Your task to perform on an android device: turn off location history Image 0: 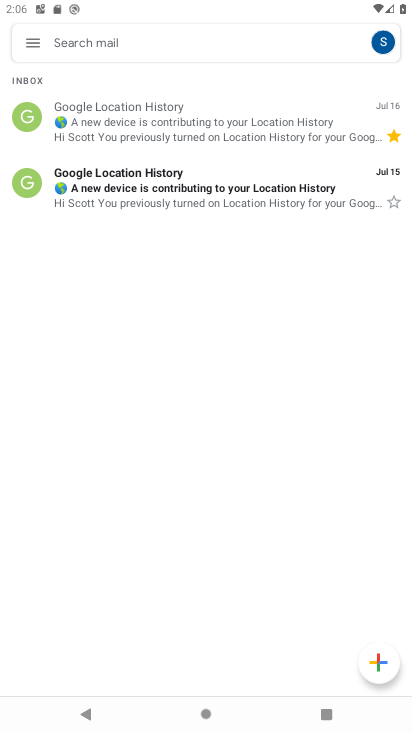
Step 0: press home button
Your task to perform on an android device: turn off location history Image 1: 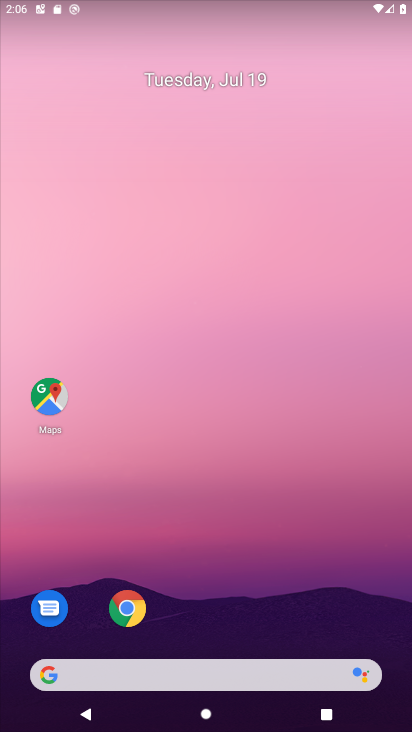
Step 1: drag from (246, 335) to (254, 198)
Your task to perform on an android device: turn off location history Image 2: 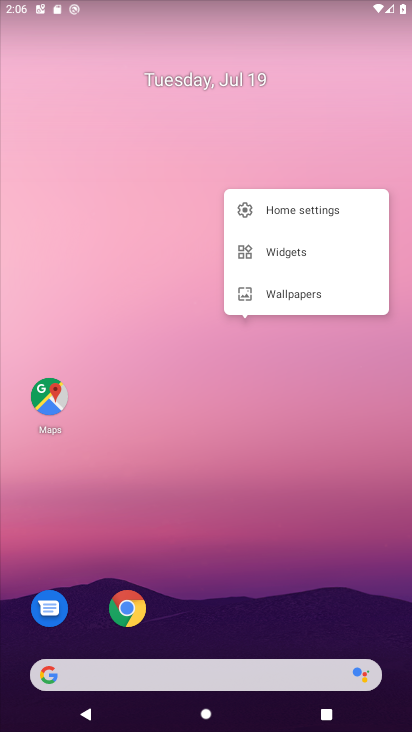
Step 2: click (266, 560)
Your task to perform on an android device: turn off location history Image 3: 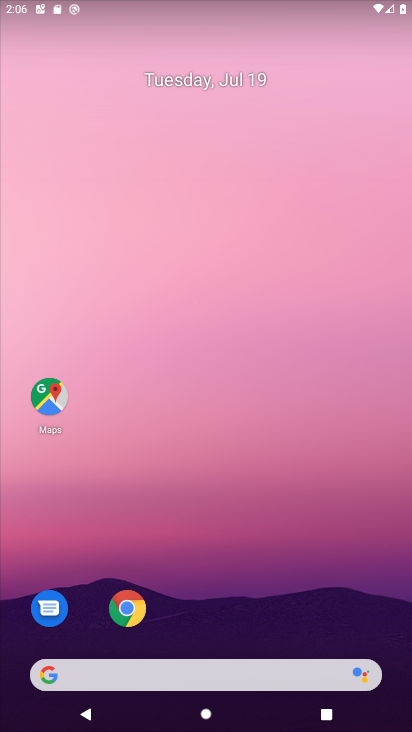
Step 3: drag from (248, 623) to (236, 184)
Your task to perform on an android device: turn off location history Image 4: 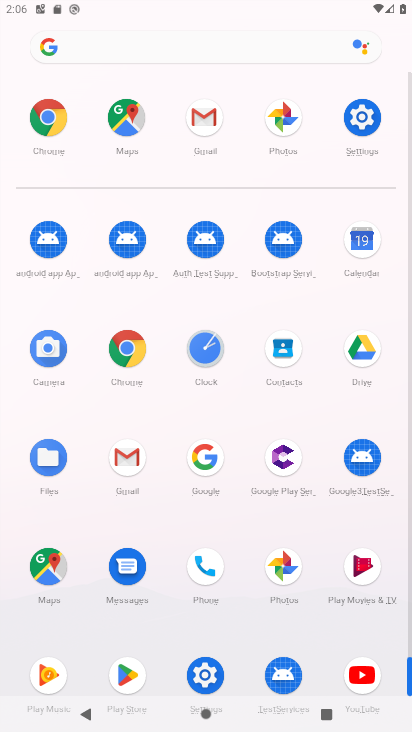
Step 4: click (210, 680)
Your task to perform on an android device: turn off location history Image 5: 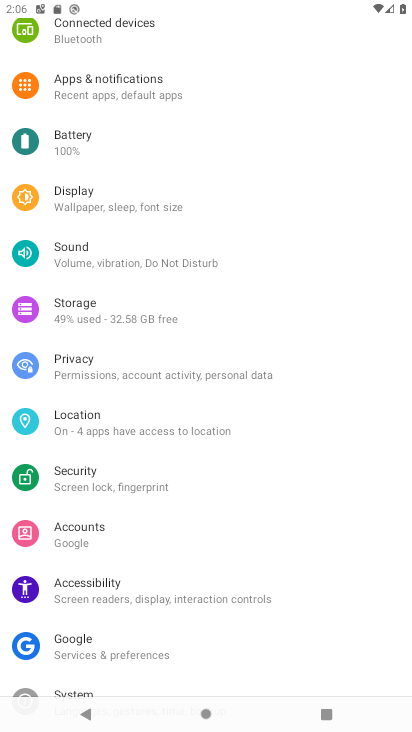
Step 5: click (199, 428)
Your task to perform on an android device: turn off location history Image 6: 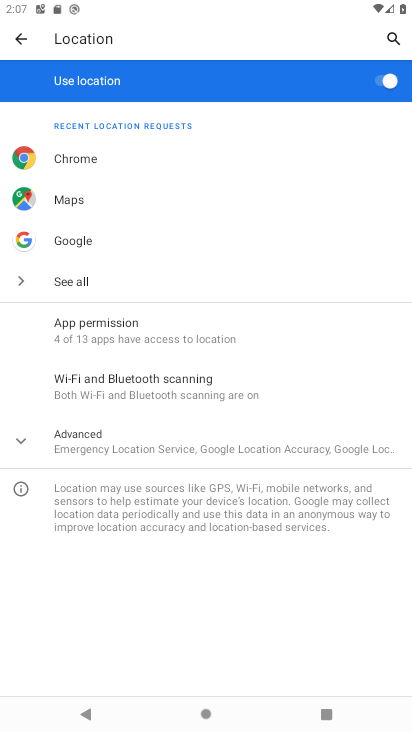
Step 6: click (187, 431)
Your task to perform on an android device: turn off location history Image 7: 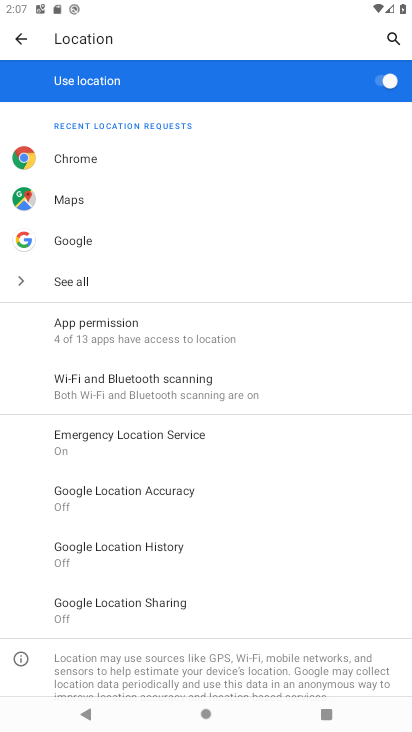
Step 7: task complete